Your task to perform on an android device: Search for pizza restaurants on Maps Image 0: 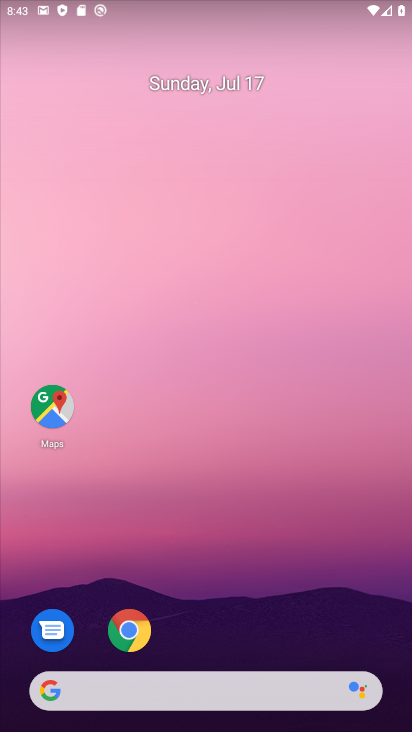
Step 0: drag from (336, 596) to (384, 94)
Your task to perform on an android device: Search for pizza restaurants on Maps Image 1: 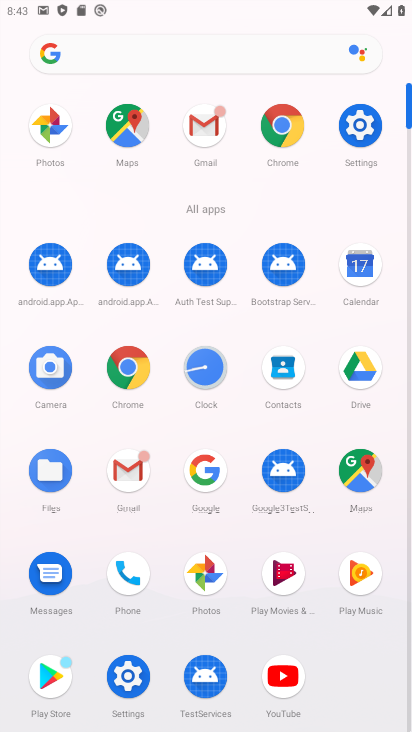
Step 1: click (362, 469)
Your task to perform on an android device: Search for pizza restaurants on Maps Image 2: 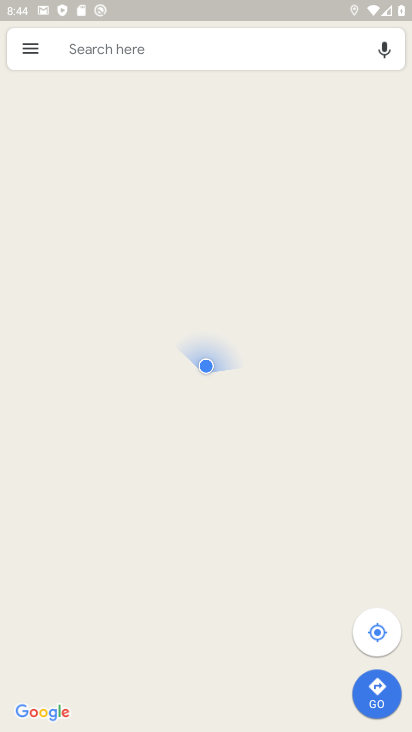
Step 2: click (242, 54)
Your task to perform on an android device: Search for pizza restaurants on Maps Image 3: 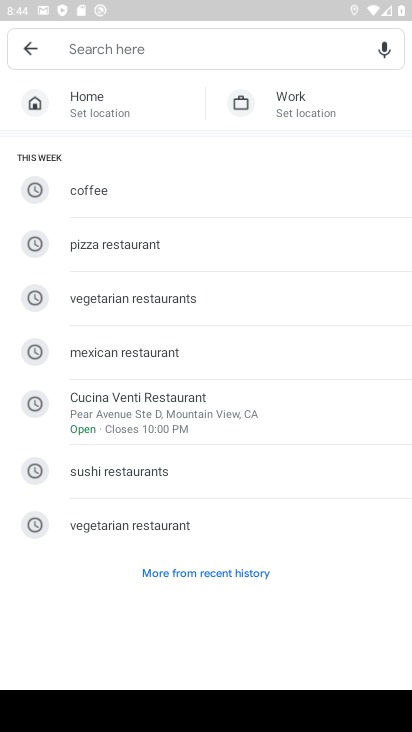
Step 3: type "pizza restaurants"
Your task to perform on an android device: Search for pizza restaurants on Maps Image 4: 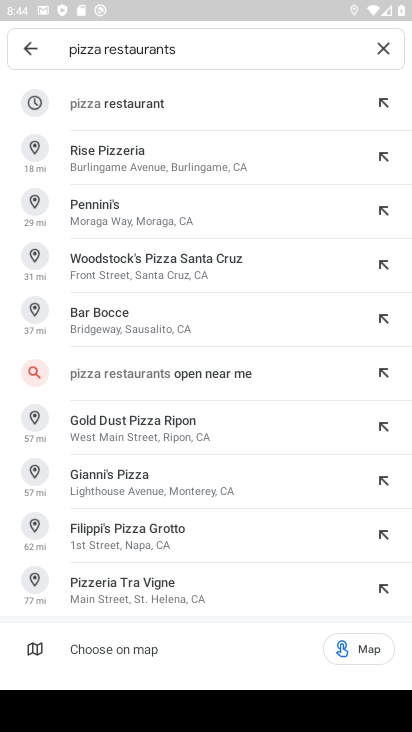
Step 4: click (330, 116)
Your task to perform on an android device: Search for pizza restaurants on Maps Image 5: 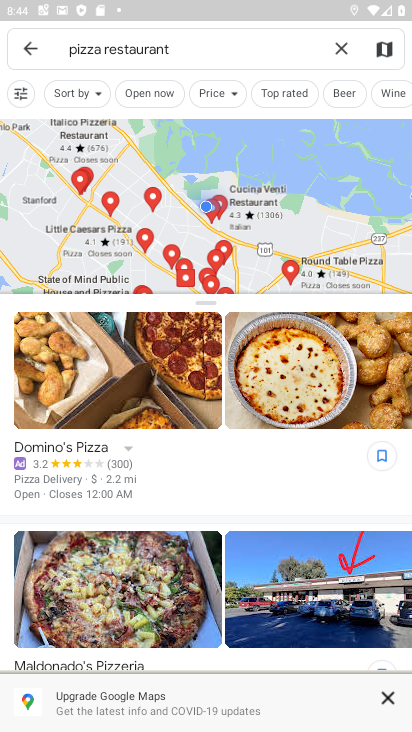
Step 5: task complete